Your task to perform on an android device: Is it going to rain tomorrow? Image 0: 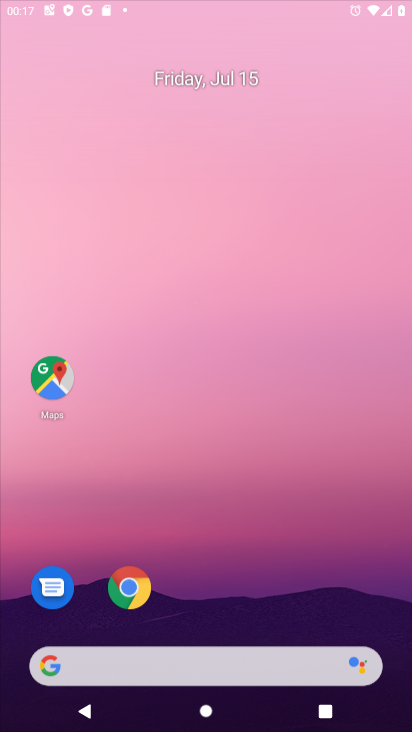
Step 0: press home button
Your task to perform on an android device: Is it going to rain tomorrow? Image 1: 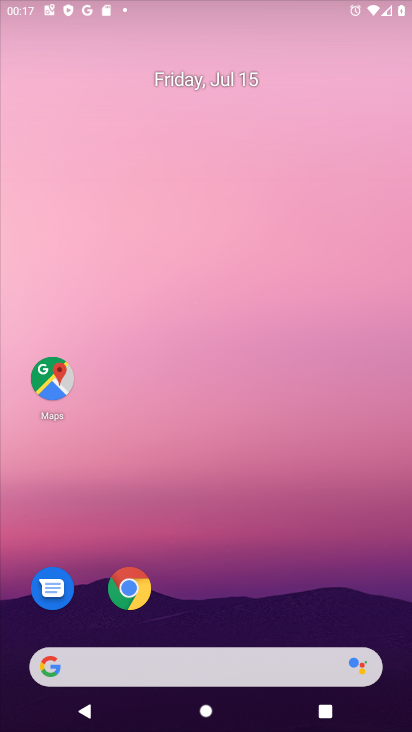
Step 1: press home button
Your task to perform on an android device: Is it going to rain tomorrow? Image 2: 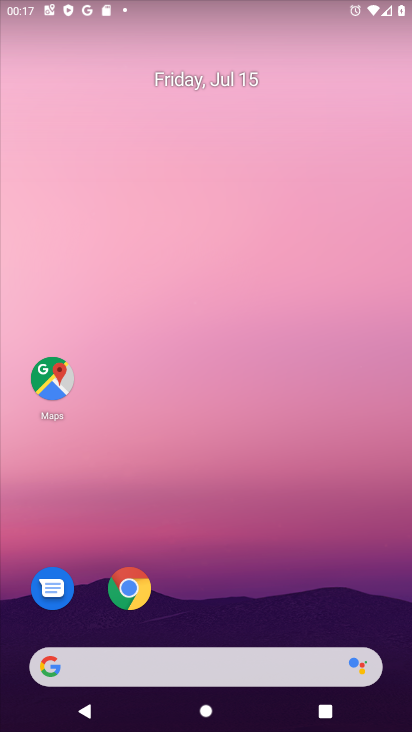
Step 2: click (121, 668)
Your task to perform on an android device: Is it going to rain tomorrow? Image 3: 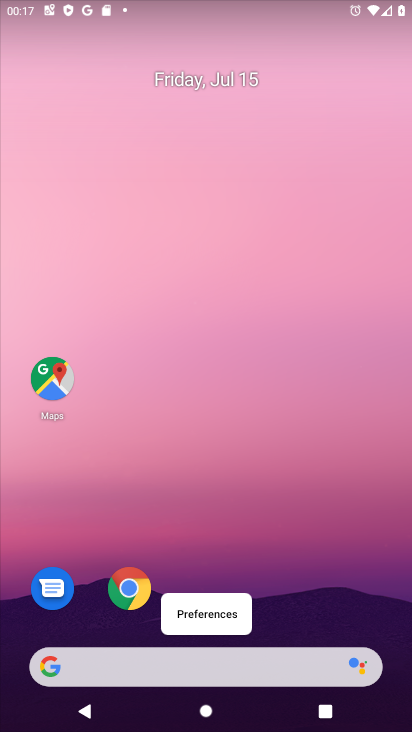
Step 3: click (132, 667)
Your task to perform on an android device: Is it going to rain tomorrow? Image 4: 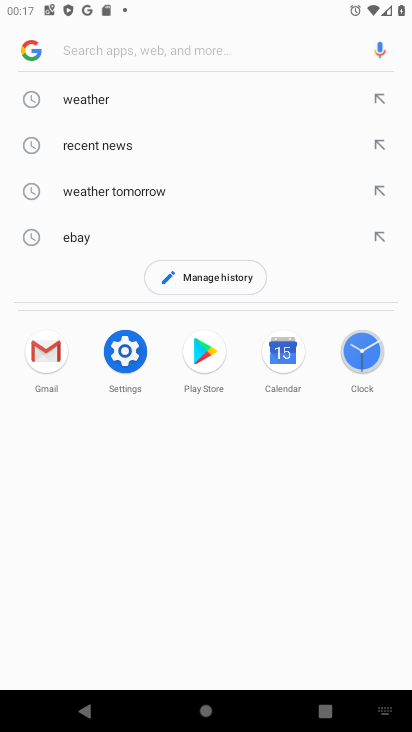
Step 4: click (99, 99)
Your task to perform on an android device: Is it going to rain tomorrow? Image 5: 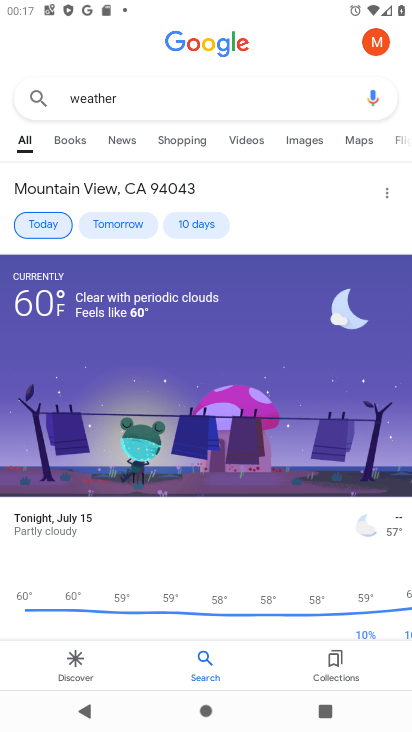
Step 5: click (127, 225)
Your task to perform on an android device: Is it going to rain tomorrow? Image 6: 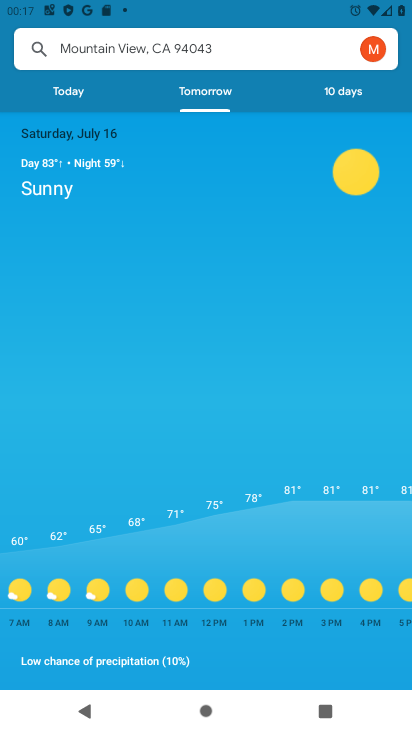
Step 6: task complete